Your task to perform on an android device: What's the weather going to be this weekend? Image 0: 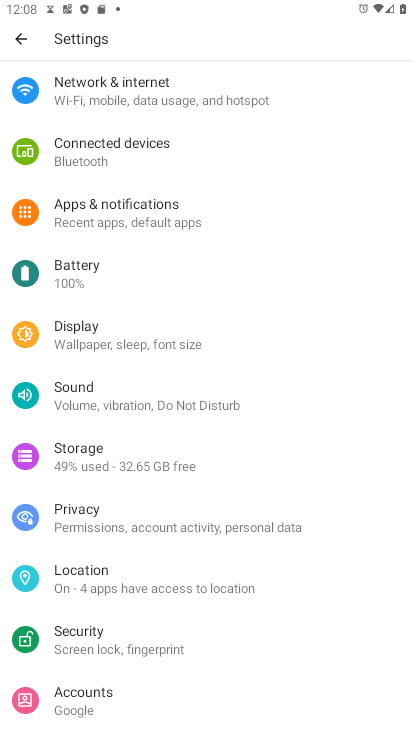
Step 0: press home button
Your task to perform on an android device: What's the weather going to be this weekend? Image 1: 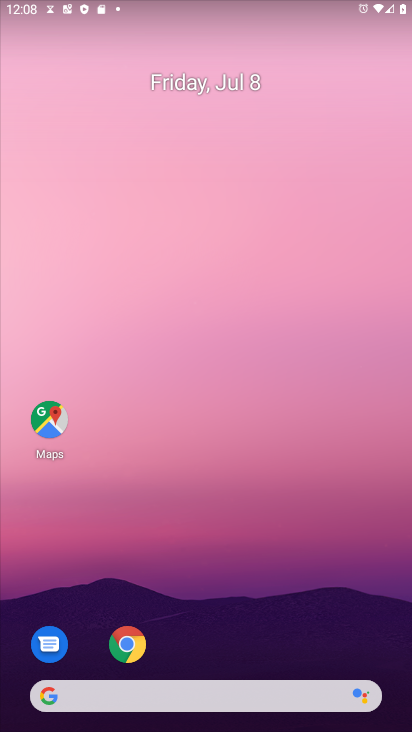
Step 1: click (201, 690)
Your task to perform on an android device: What's the weather going to be this weekend? Image 2: 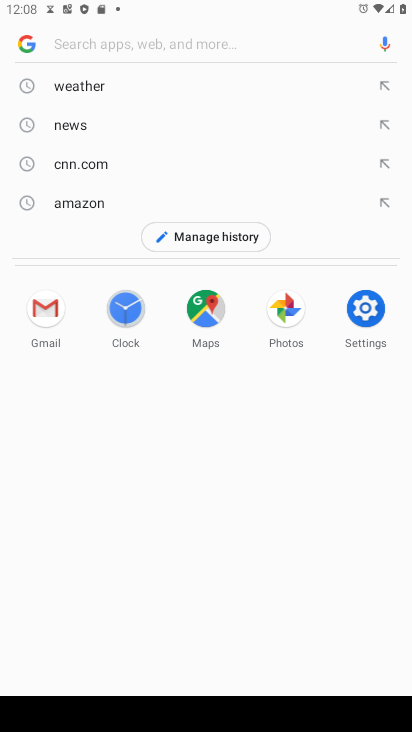
Step 2: click (98, 88)
Your task to perform on an android device: What's the weather going to be this weekend? Image 3: 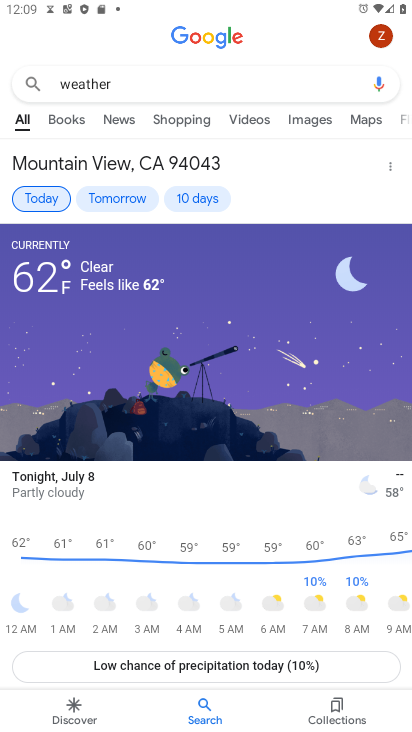
Step 3: click (199, 201)
Your task to perform on an android device: What's the weather going to be this weekend? Image 4: 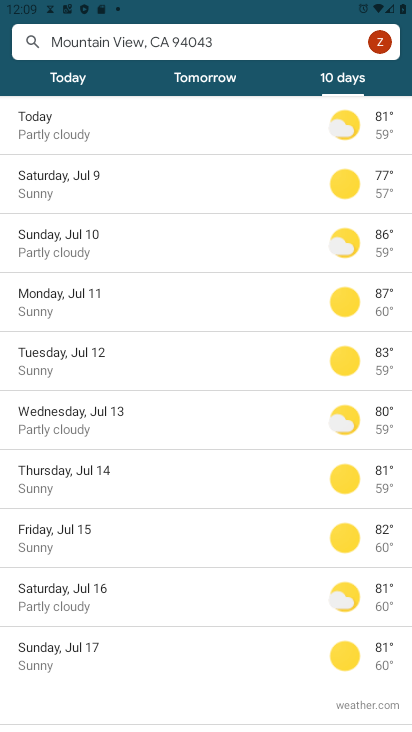
Step 4: task complete